Your task to perform on an android device: toggle sleep mode Image 0: 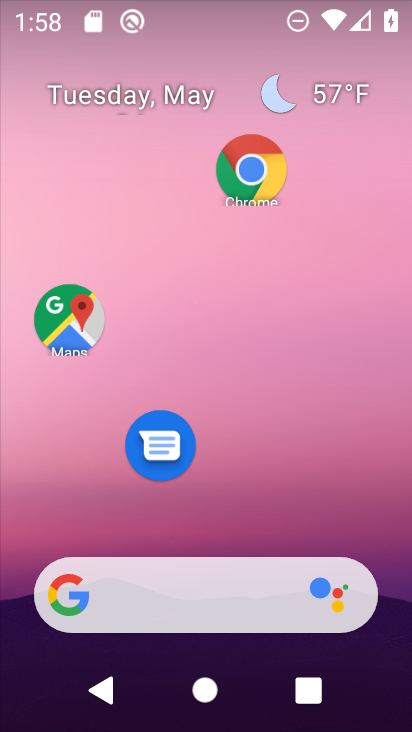
Step 0: drag from (250, 717) to (254, 171)
Your task to perform on an android device: toggle sleep mode Image 1: 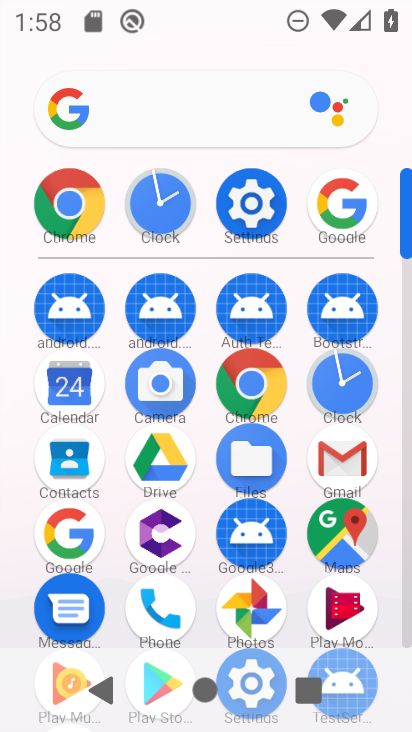
Step 1: click (253, 205)
Your task to perform on an android device: toggle sleep mode Image 2: 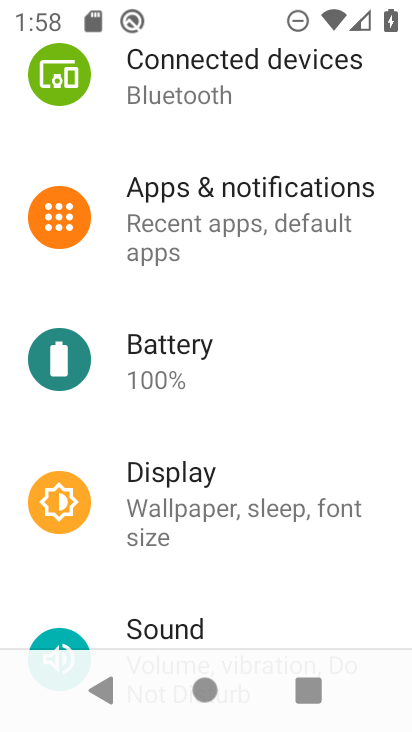
Step 2: click (195, 514)
Your task to perform on an android device: toggle sleep mode Image 3: 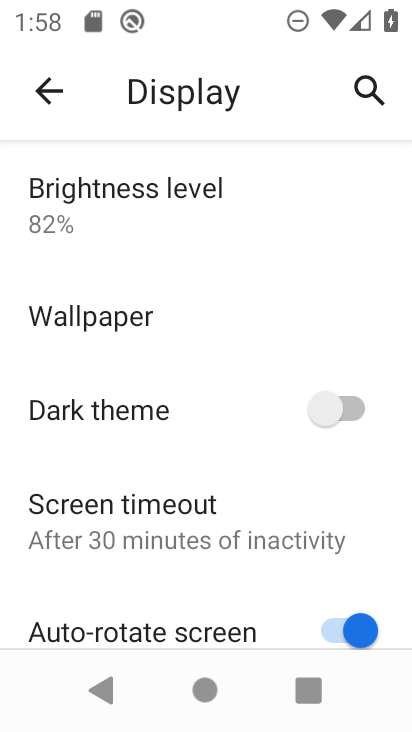
Step 3: task complete